Your task to perform on an android device: turn off improve location accuracy Image 0: 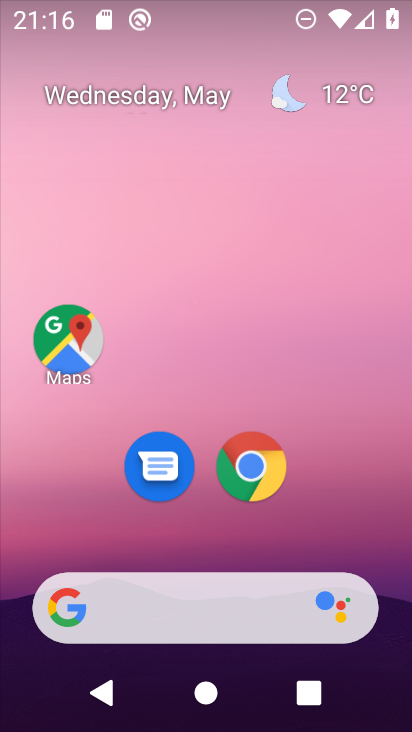
Step 0: drag from (209, 530) to (202, 96)
Your task to perform on an android device: turn off improve location accuracy Image 1: 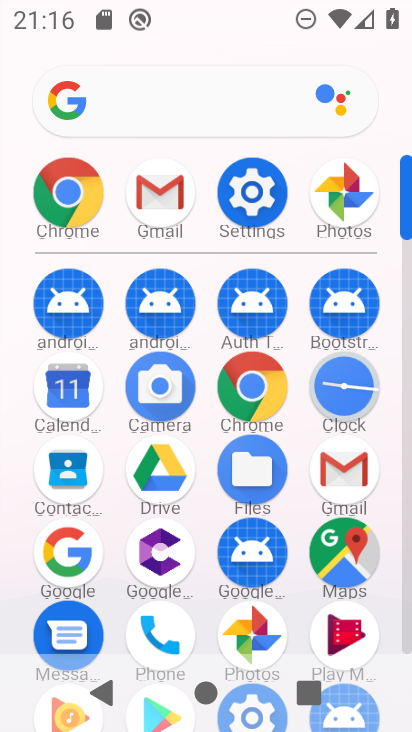
Step 1: click (248, 184)
Your task to perform on an android device: turn off improve location accuracy Image 2: 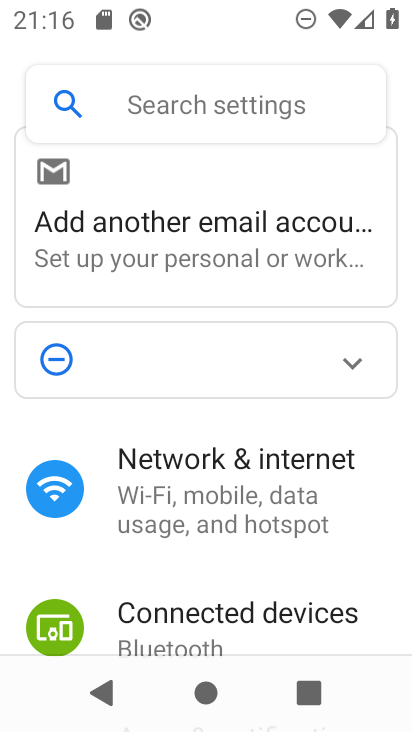
Step 2: drag from (217, 614) to (231, 115)
Your task to perform on an android device: turn off improve location accuracy Image 3: 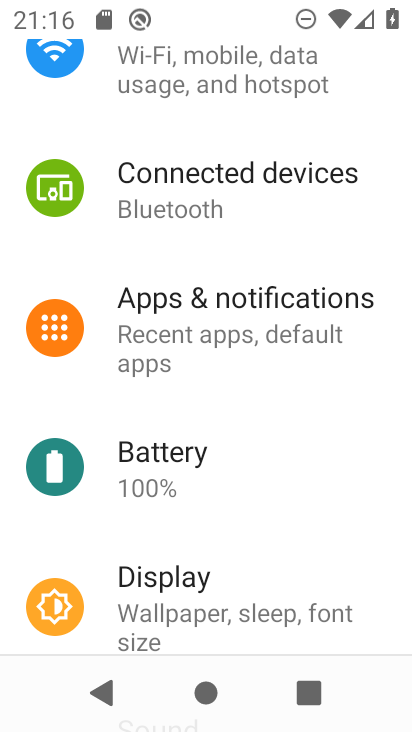
Step 3: drag from (226, 628) to (198, 134)
Your task to perform on an android device: turn off improve location accuracy Image 4: 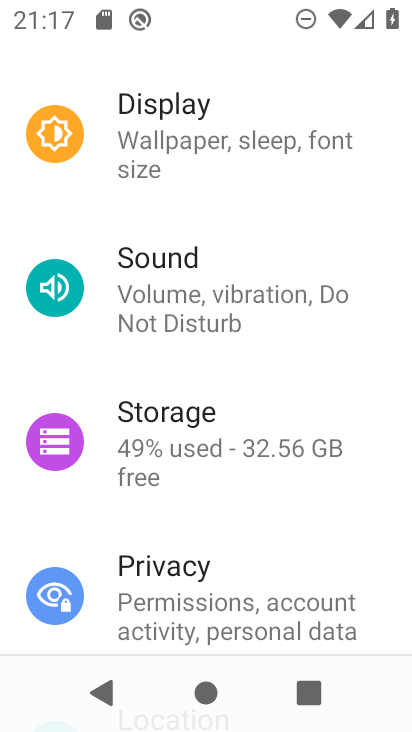
Step 4: drag from (213, 588) to (206, 119)
Your task to perform on an android device: turn off improve location accuracy Image 5: 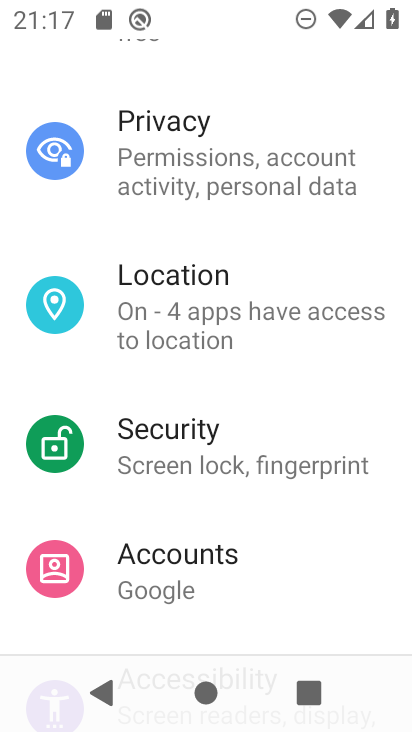
Step 5: click (210, 286)
Your task to perform on an android device: turn off improve location accuracy Image 6: 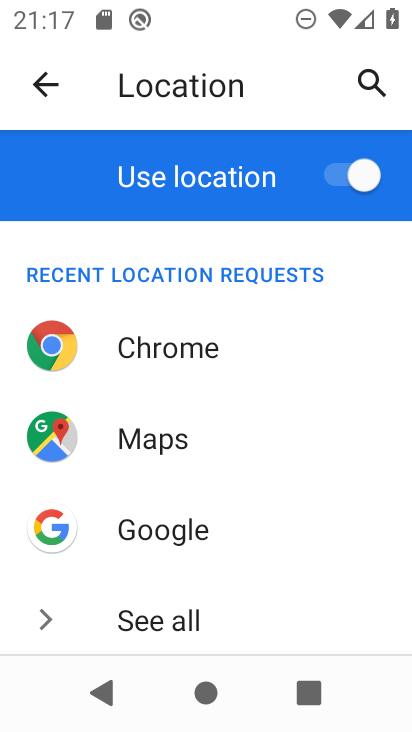
Step 6: drag from (225, 617) to (212, 173)
Your task to perform on an android device: turn off improve location accuracy Image 7: 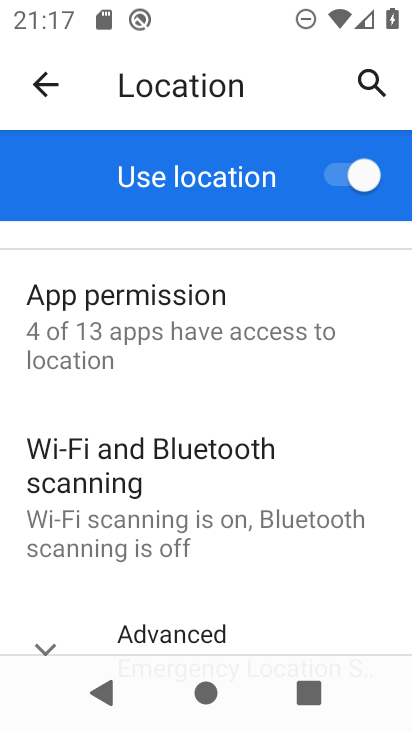
Step 7: drag from (169, 583) to (169, 178)
Your task to perform on an android device: turn off improve location accuracy Image 8: 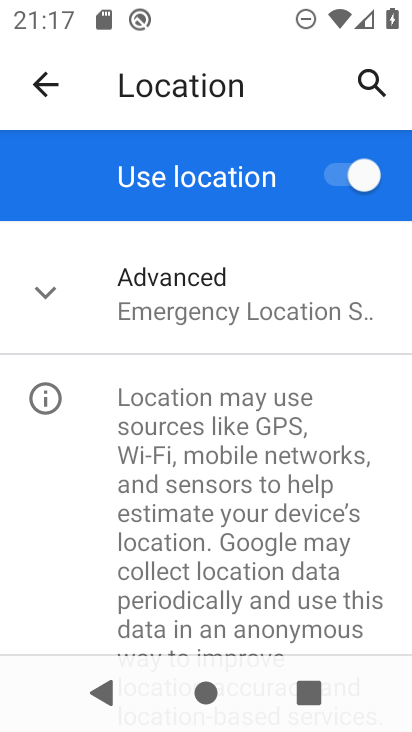
Step 8: click (42, 286)
Your task to perform on an android device: turn off improve location accuracy Image 9: 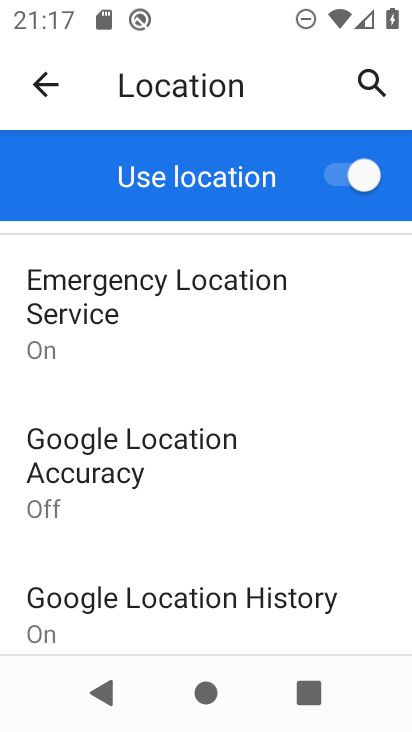
Step 9: drag from (167, 561) to (158, 368)
Your task to perform on an android device: turn off improve location accuracy Image 10: 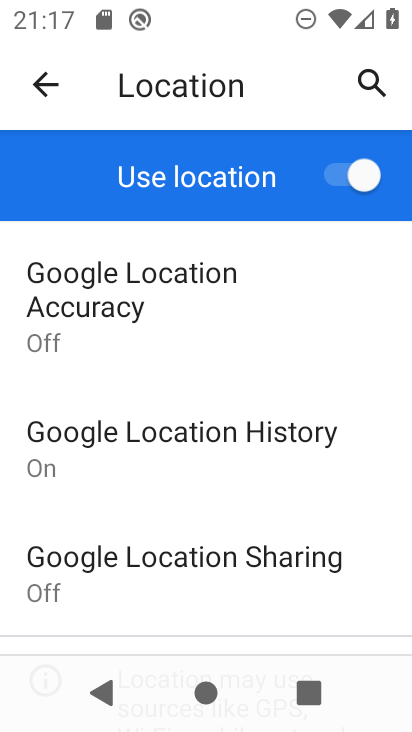
Step 10: click (82, 331)
Your task to perform on an android device: turn off improve location accuracy Image 11: 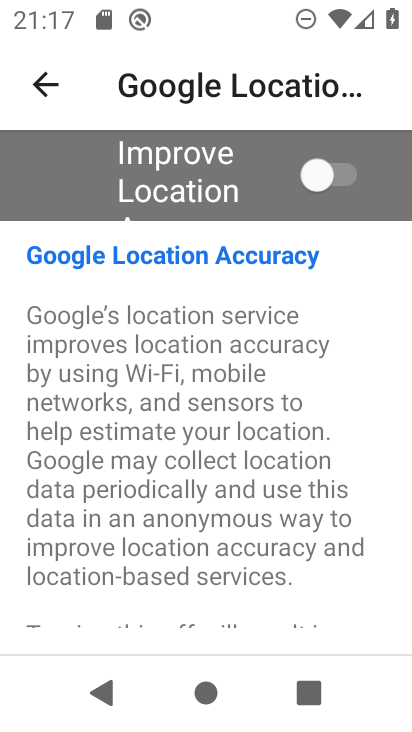
Step 11: task complete